Your task to perform on an android device: open app "Speedtest by Ookla" Image 0: 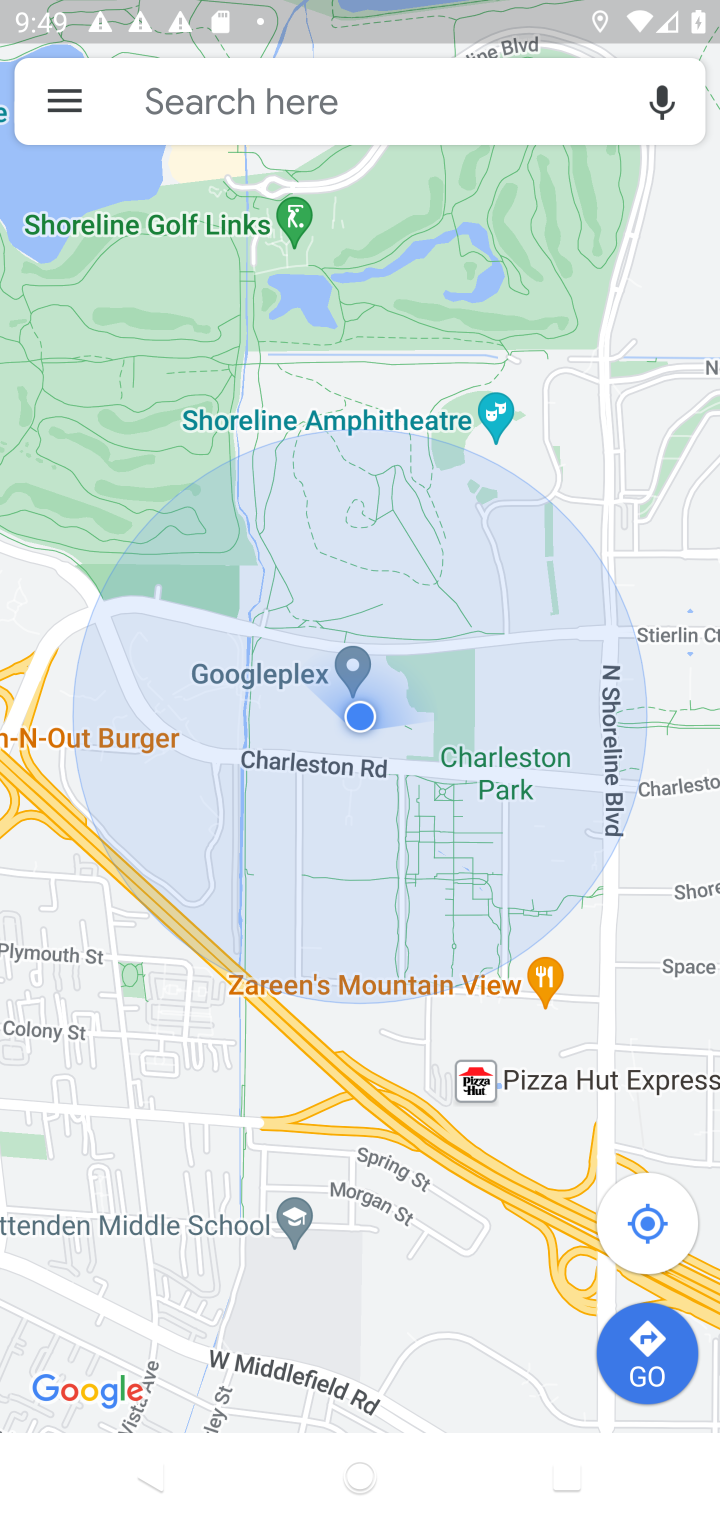
Step 0: press home button
Your task to perform on an android device: open app "Speedtest by Ookla" Image 1: 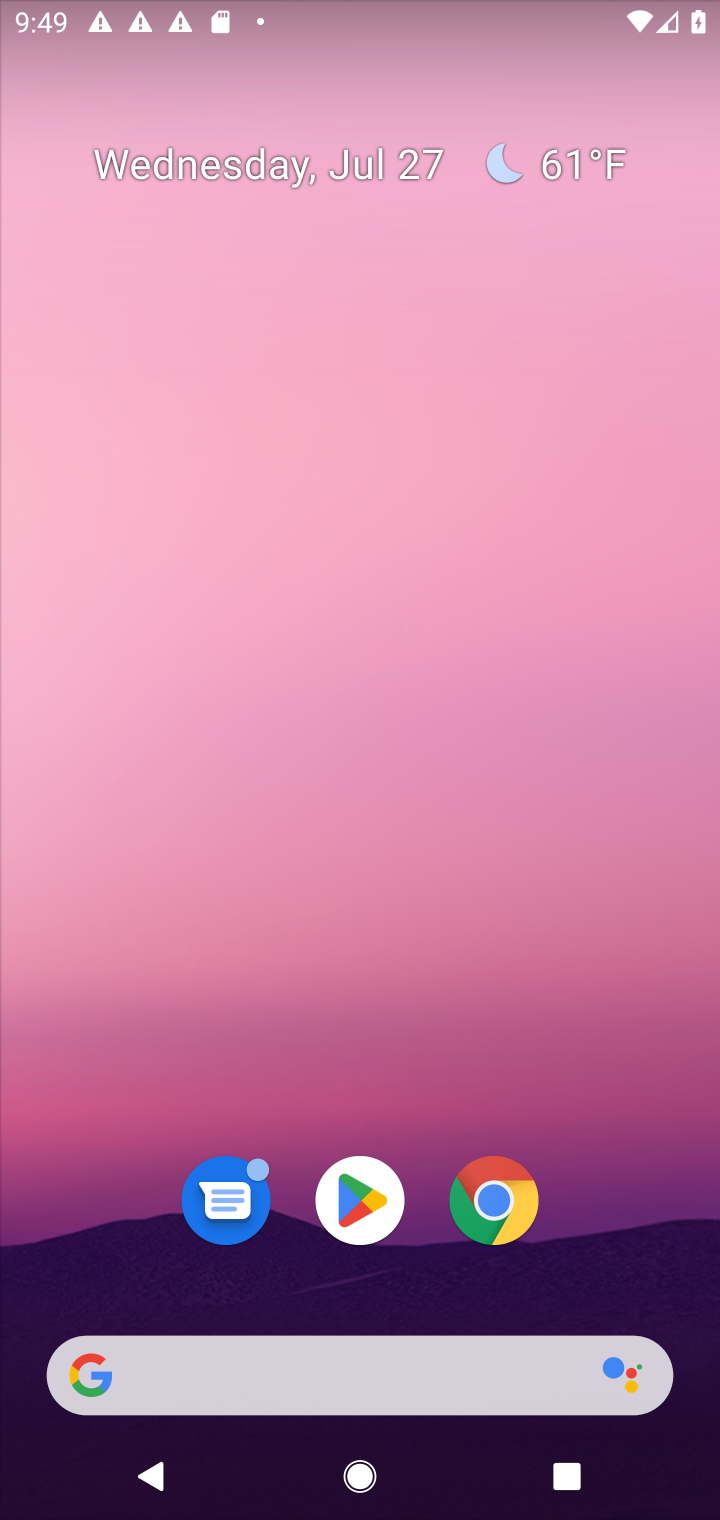
Step 1: click (353, 1206)
Your task to perform on an android device: open app "Speedtest by Ookla" Image 2: 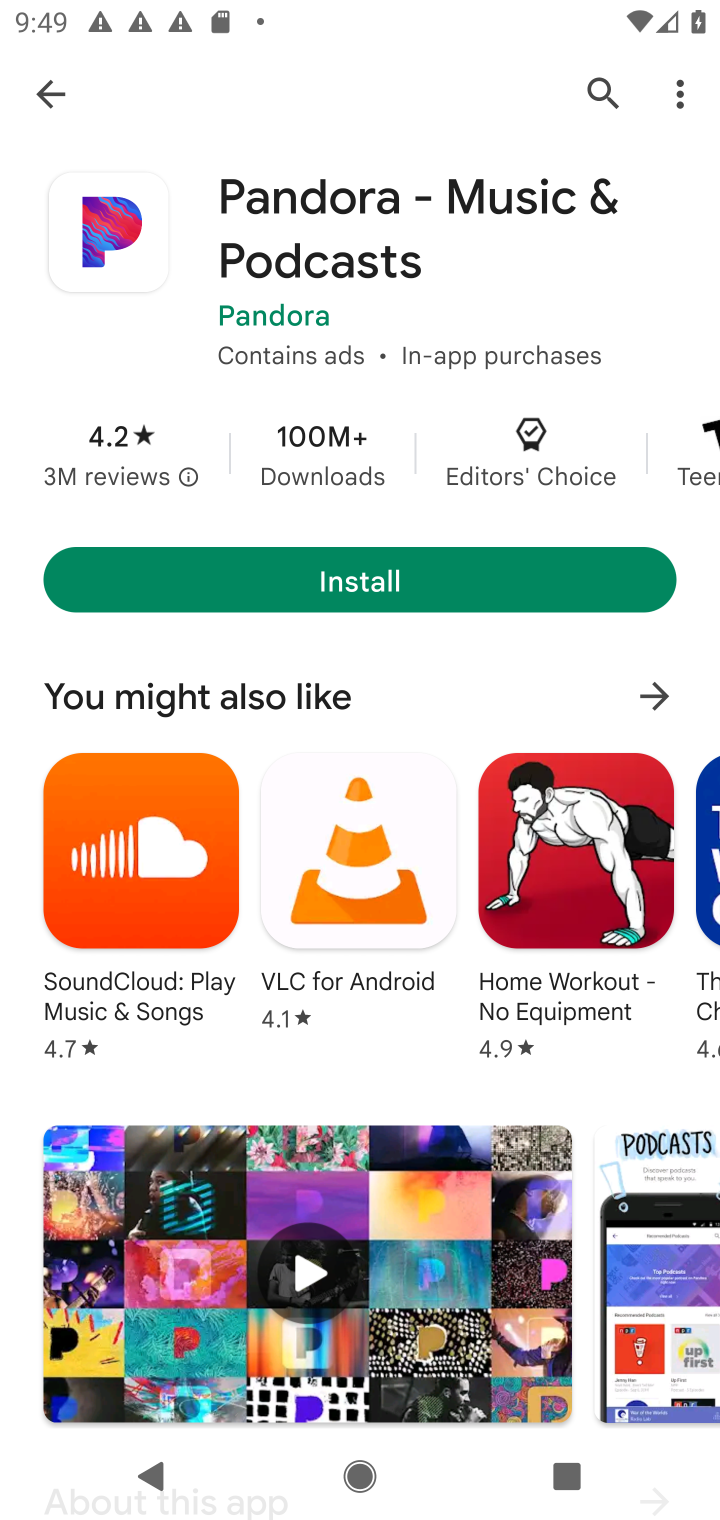
Step 2: click (42, 90)
Your task to perform on an android device: open app "Speedtest by Ookla" Image 3: 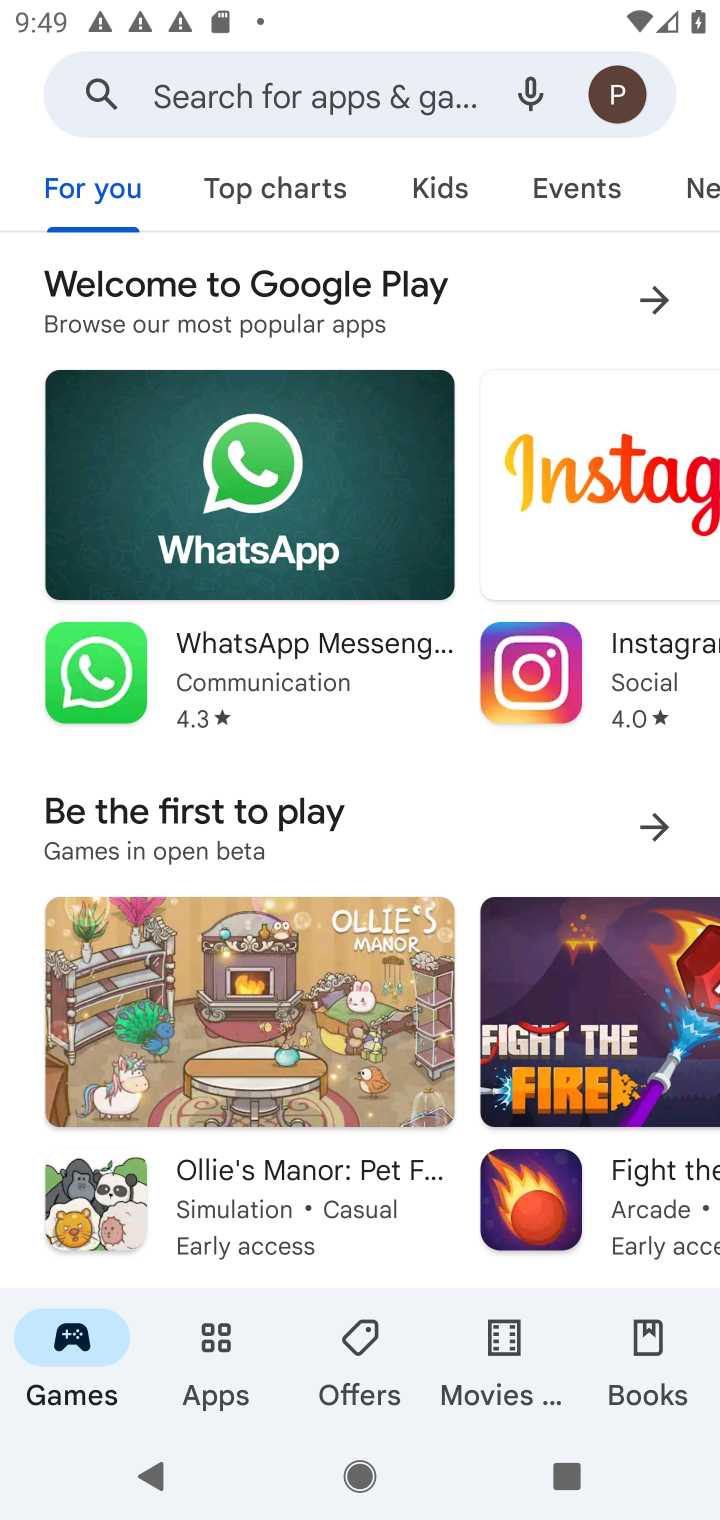
Step 3: click (349, 86)
Your task to perform on an android device: open app "Speedtest by Ookla" Image 4: 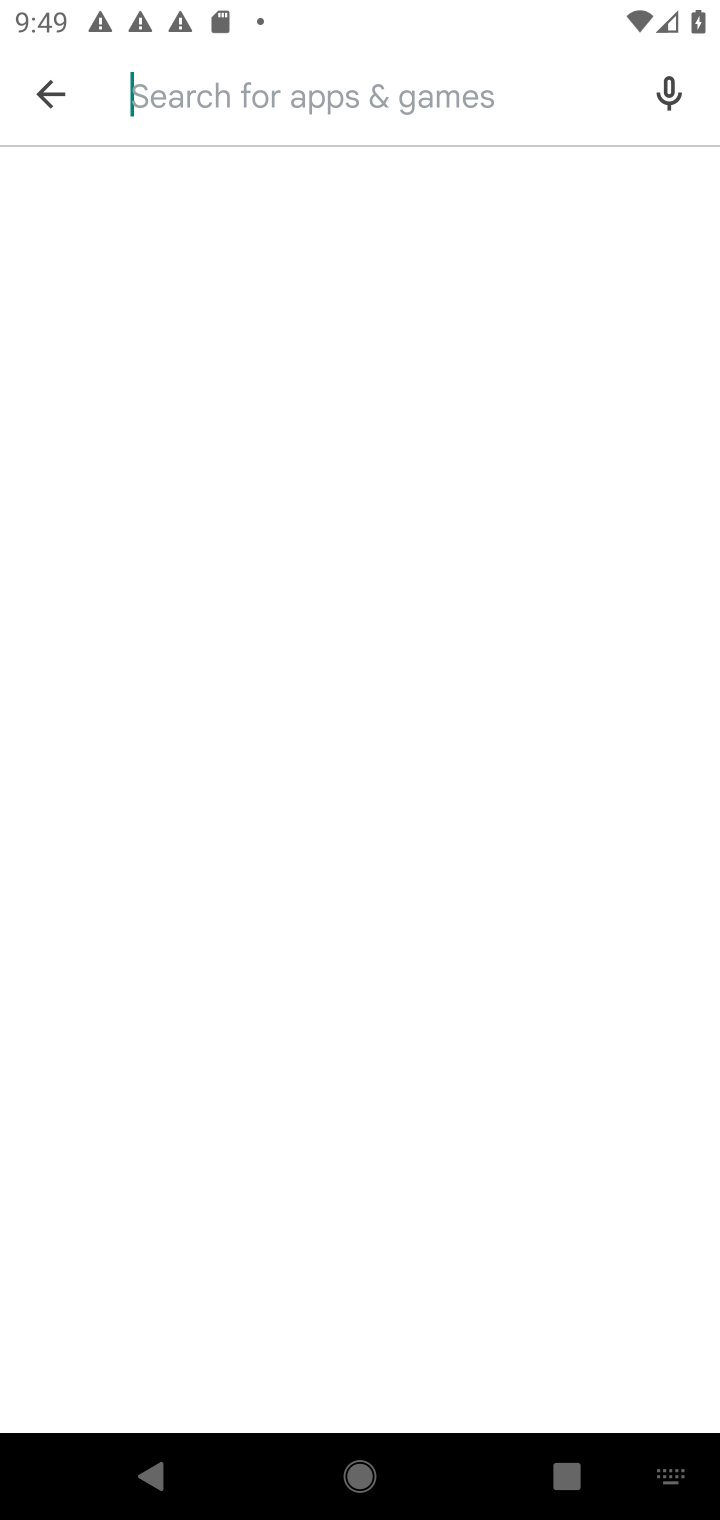
Step 4: type "Speedtest by Ookla"
Your task to perform on an android device: open app "Speedtest by Ookla" Image 5: 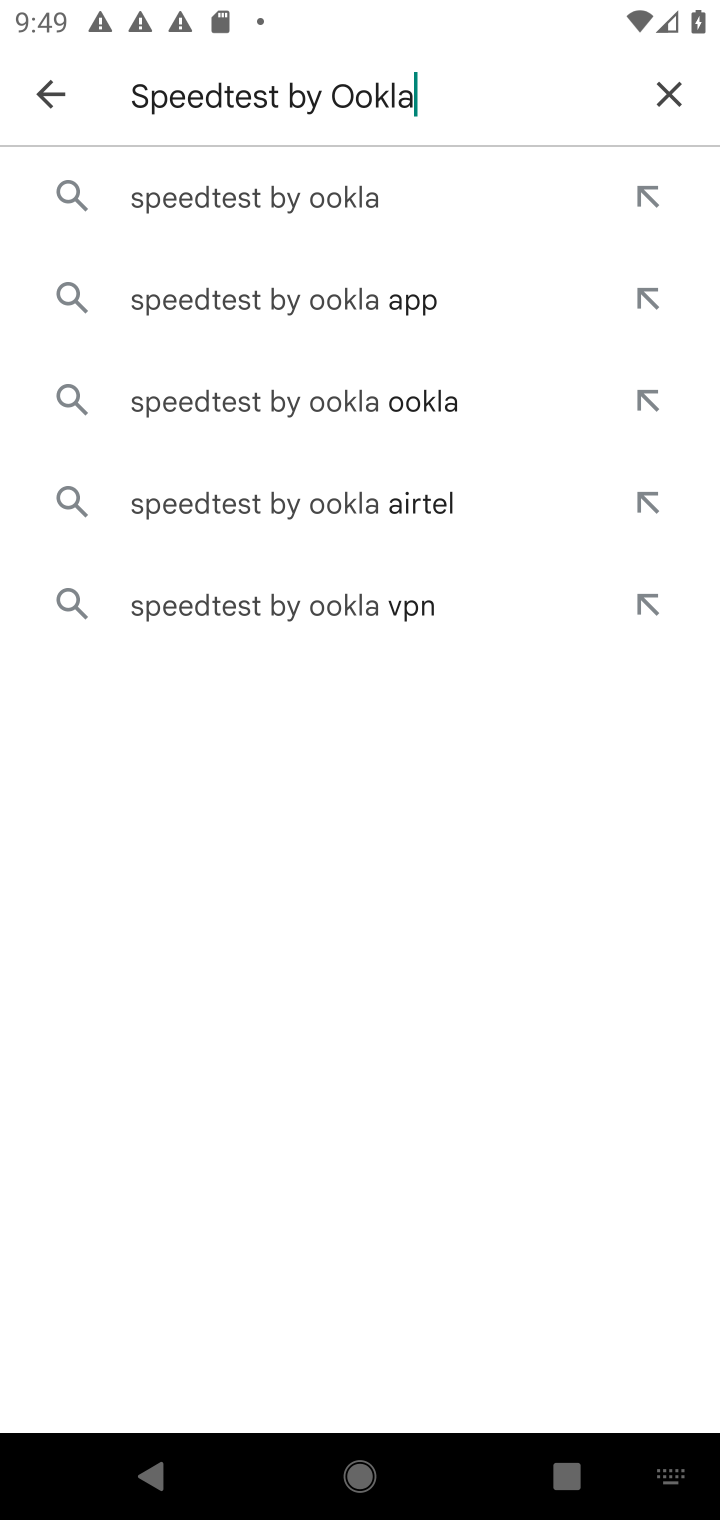
Step 5: click (285, 202)
Your task to perform on an android device: open app "Speedtest by Ookla" Image 6: 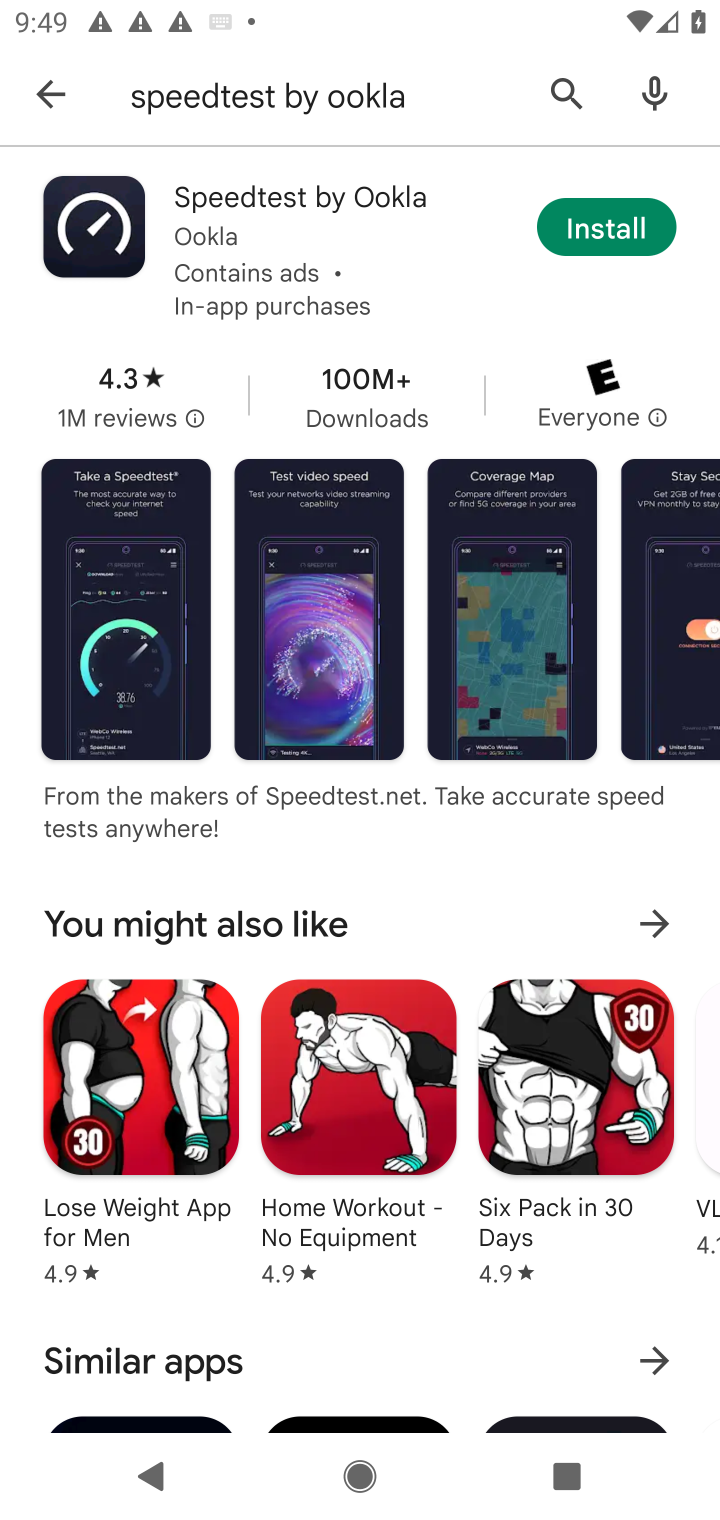
Step 6: task complete